Your task to perform on an android device: Open Reddit.com Image 0: 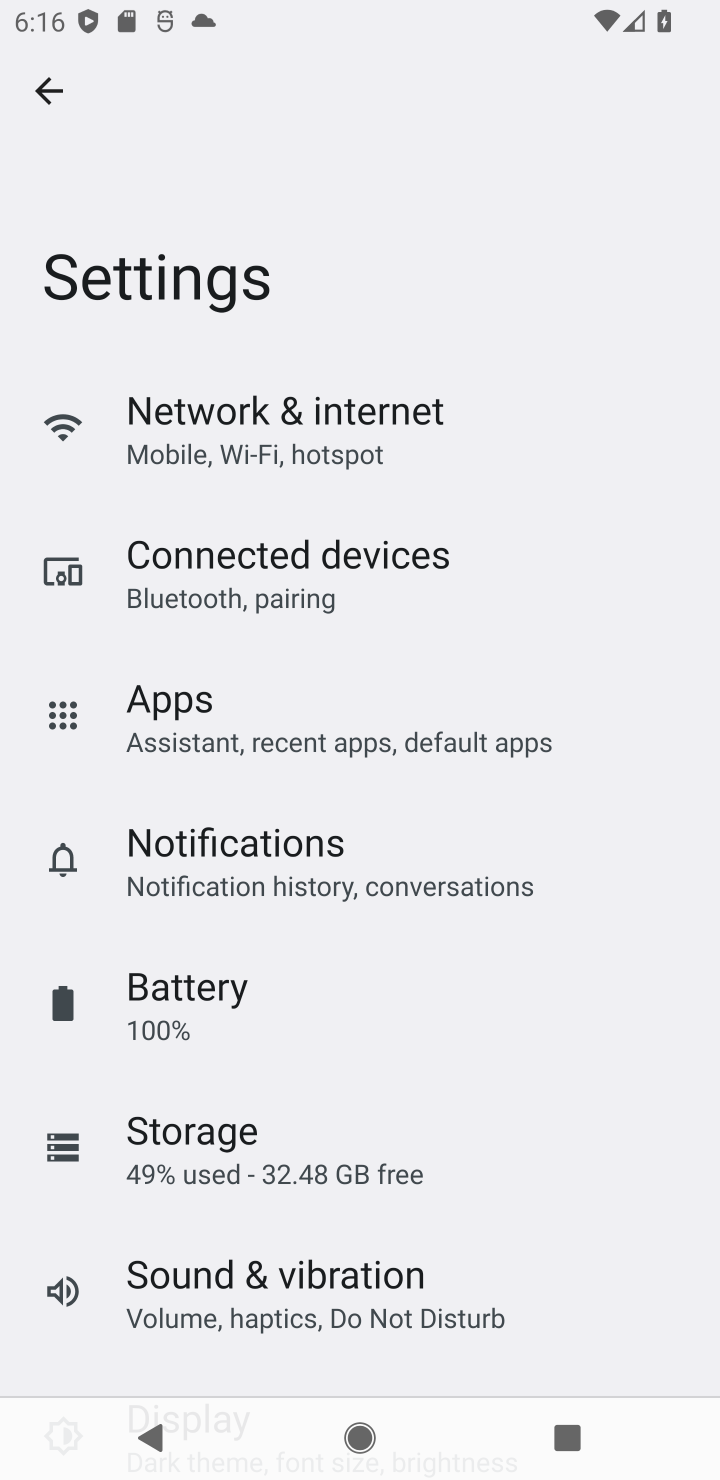
Step 0: press home button
Your task to perform on an android device: Open Reddit.com Image 1: 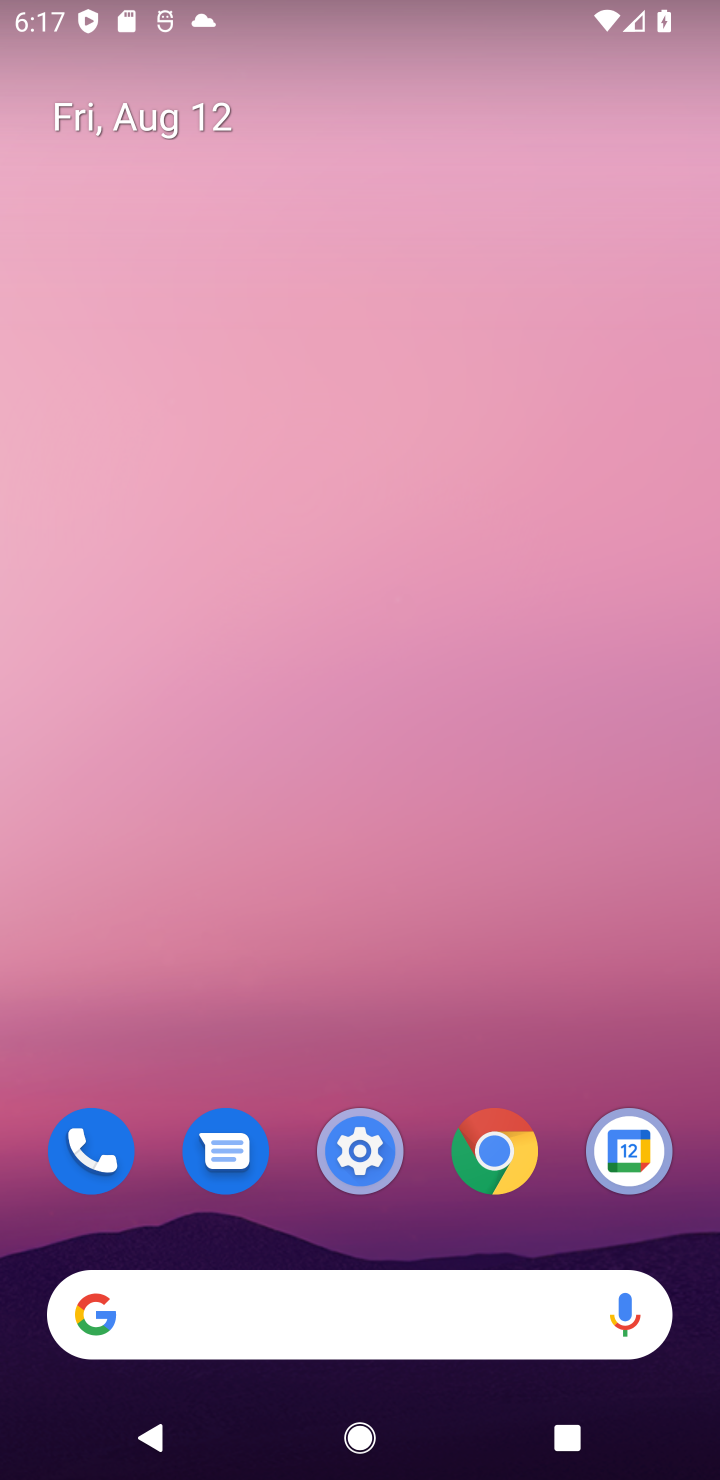
Step 1: drag from (418, 1051) to (423, 129)
Your task to perform on an android device: Open Reddit.com Image 2: 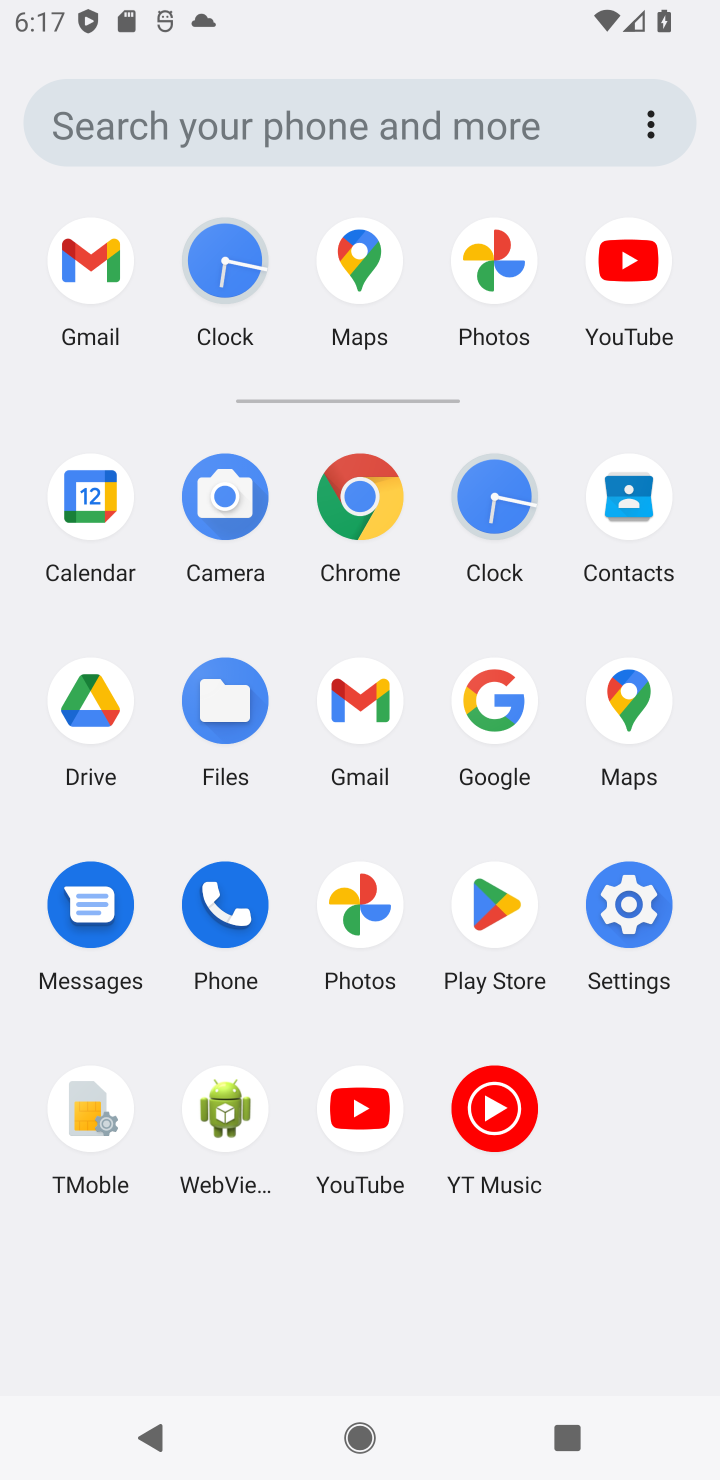
Step 2: click (359, 496)
Your task to perform on an android device: Open Reddit.com Image 3: 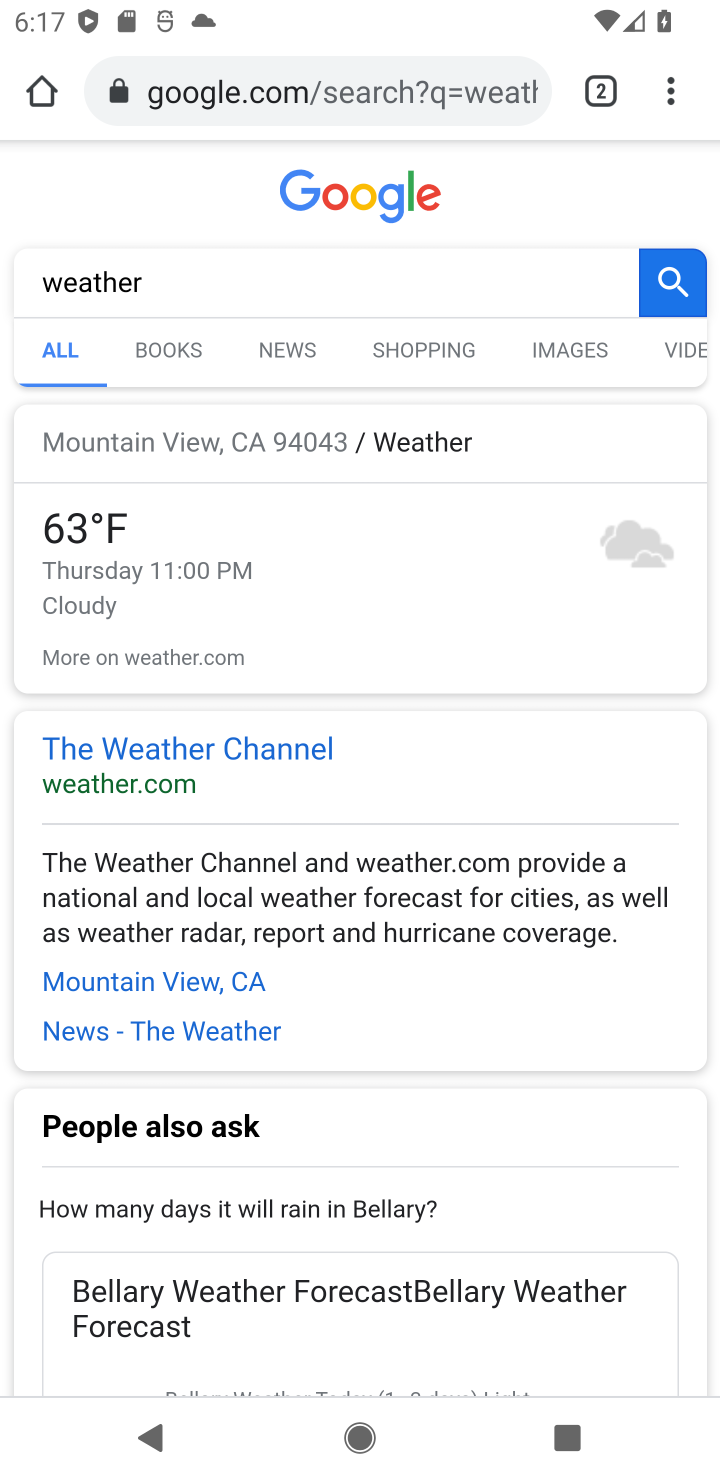
Step 3: click (441, 97)
Your task to perform on an android device: Open Reddit.com Image 4: 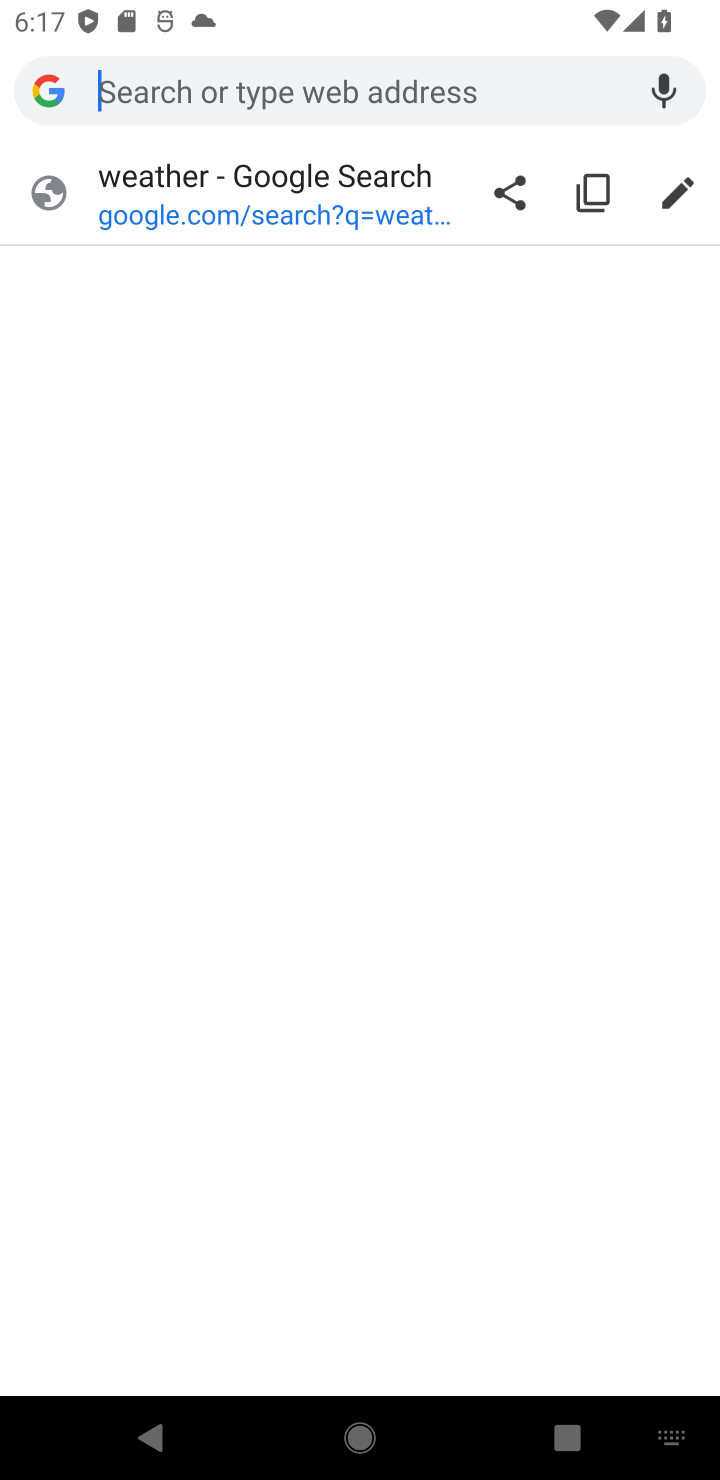
Step 4: type "reddit.com"
Your task to perform on an android device: Open Reddit.com Image 5: 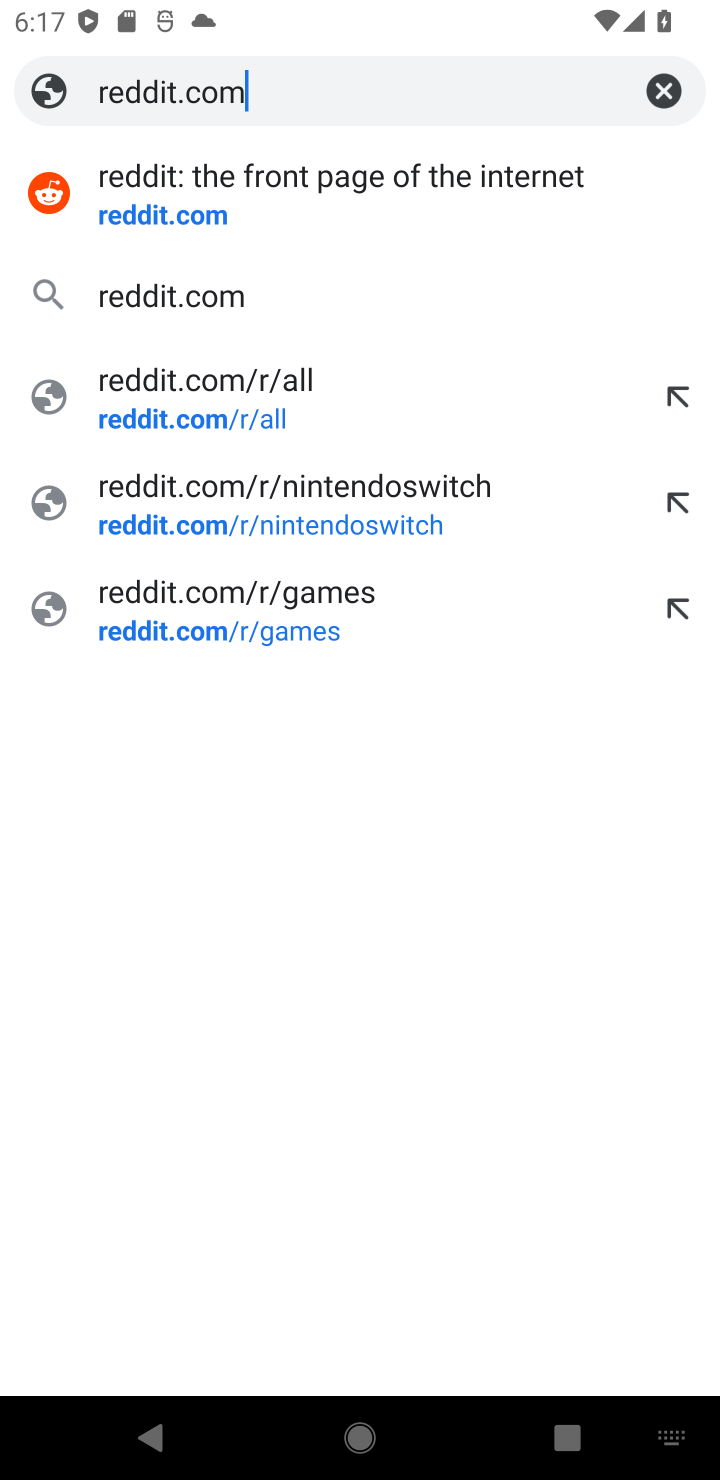
Step 5: click (169, 214)
Your task to perform on an android device: Open Reddit.com Image 6: 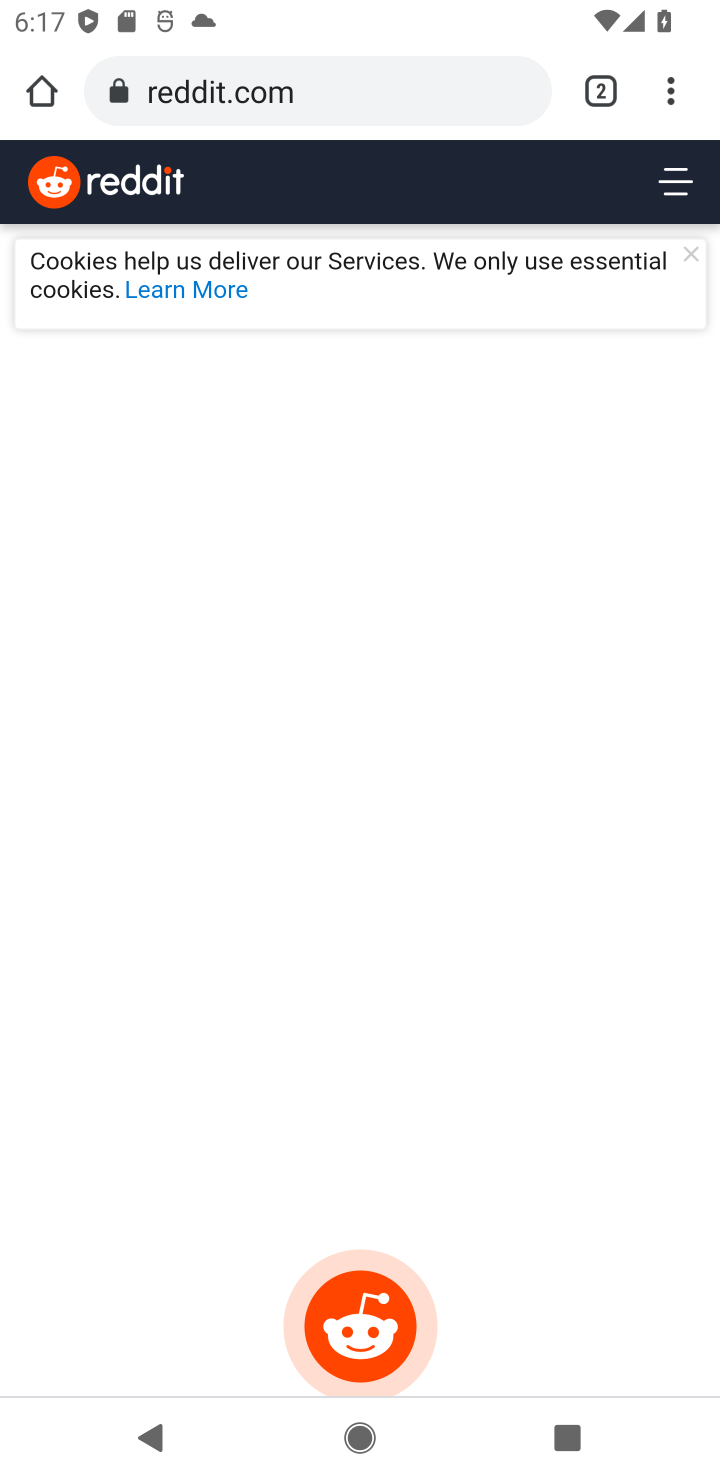
Step 6: task complete